Your task to perform on an android device: Open settings Image 0: 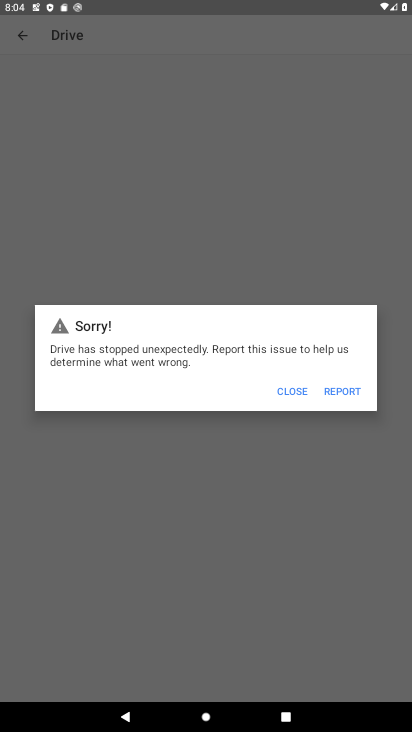
Step 0: press home button
Your task to perform on an android device: Open settings Image 1: 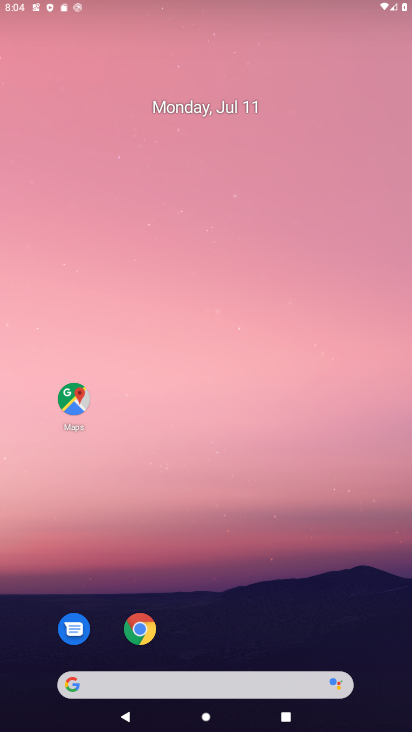
Step 1: drag from (212, 627) to (269, 131)
Your task to perform on an android device: Open settings Image 2: 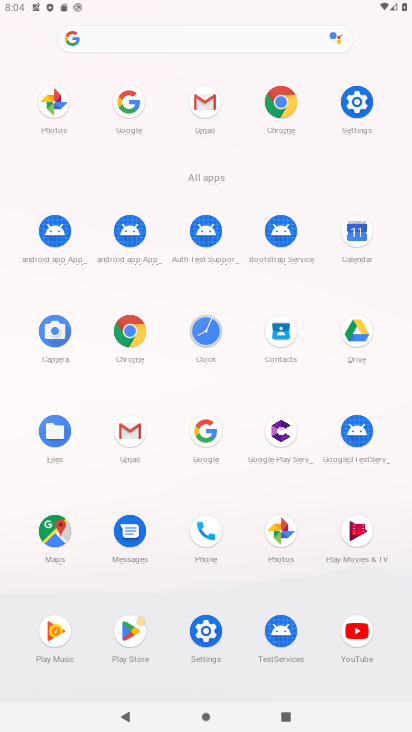
Step 2: click (359, 104)
Your task to perform on an android device: Open settings Image 3: 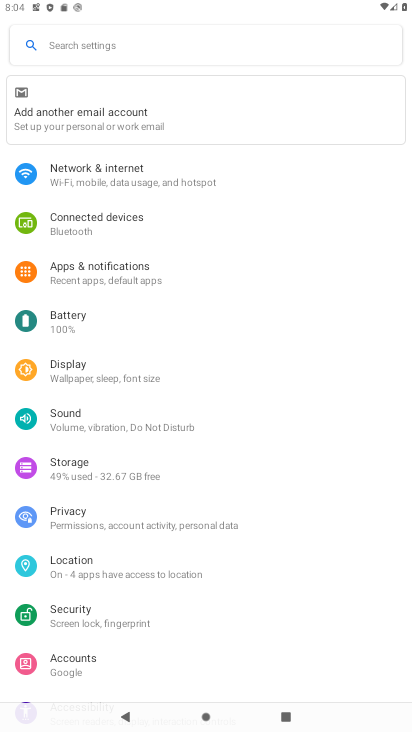
Step 3: task complete